Your task to perform on an android device: Search for sushi restaurants on Maps Image 0: 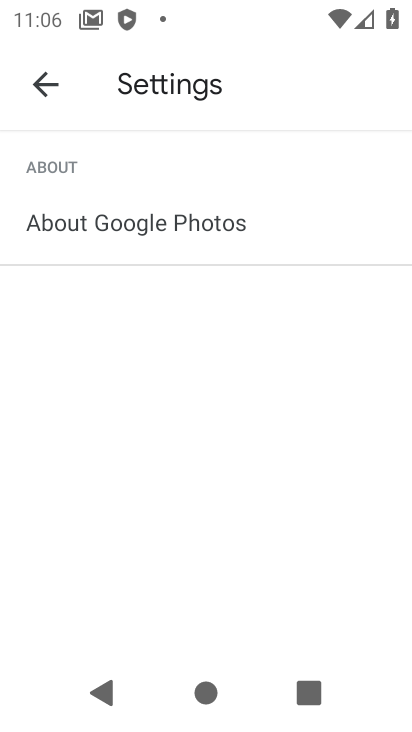
Step 0: press back button
Your task to perform on an android device: Search for sushi restaurants on Maps Image 1: 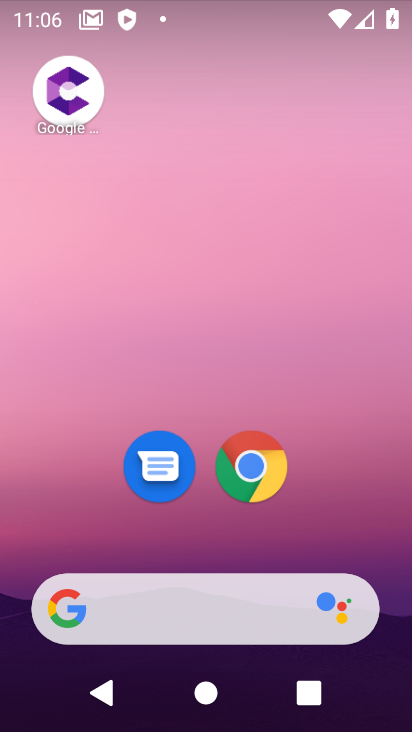
Step 1: drag from (334, 505) to (129, 52)
Your task to perform on an android device: Search for sushi restaurants on Maps Image 2: 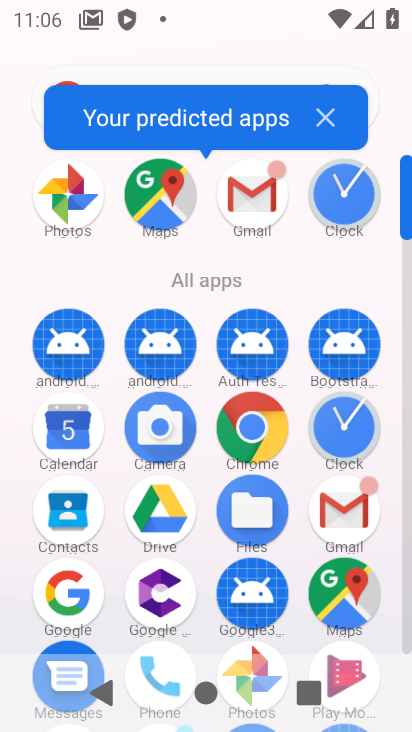
Step 2: click (148, 186)
Your task to perform on an android device: Search for sushi restaurants on Maps Image 3: 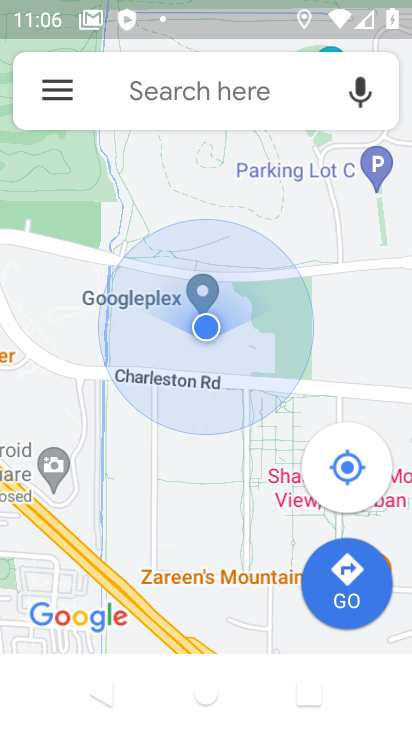
Step 3: click (171, 88)
Your task to perform on an android device: Search for sushi restaurants on Maps Image 4: 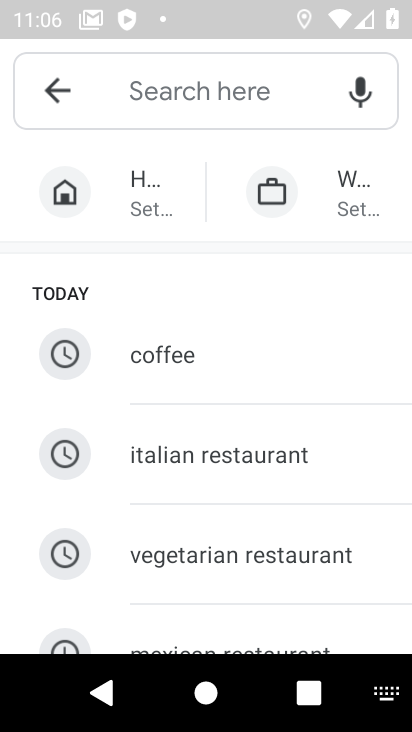
Step 4: drag from (319, 508) to (243, 178)
Your task to perform on an android device: Search for sushi restaurants on Maps Image 5: 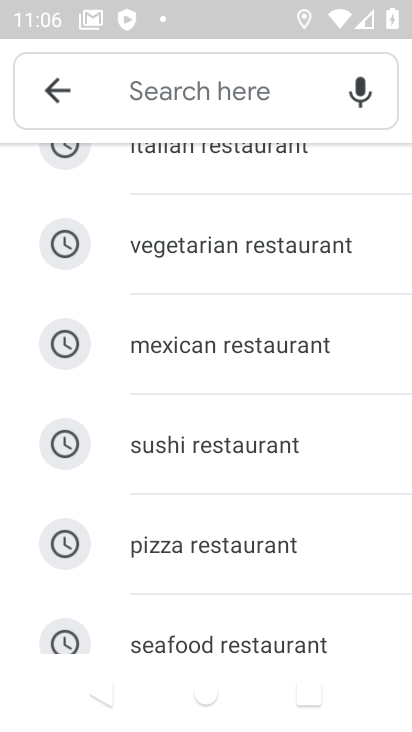
Step 5: click (253, 450)
Your task to perform on an android device: Search for sushi restaurants on Maps Image 6: 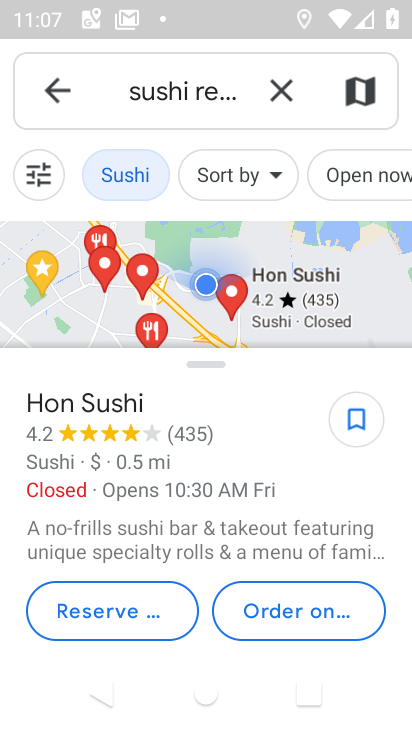
Step 6: task complete